Your task to perform on an android device: Open display settings Image 0: 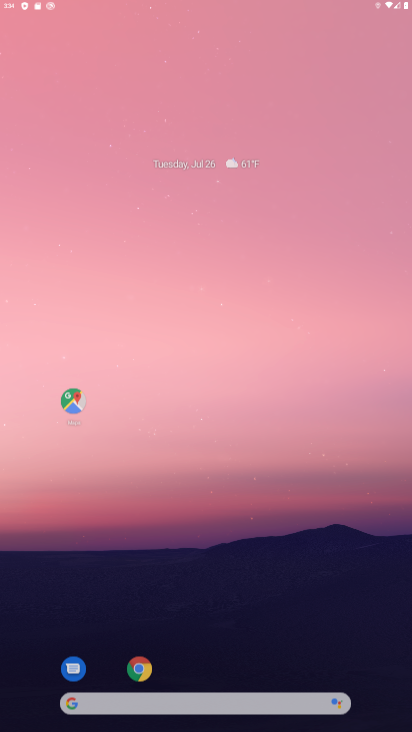
Step 0: press home button
Your task to perform on an android device: Open display settings Image 1: 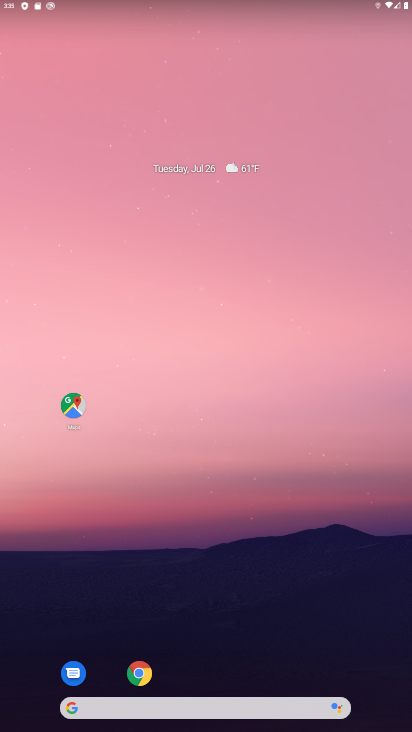
Step 1: drag from (195, 682) to (317, 124)
Your task to perform on an android device: Open display settings Image 2: 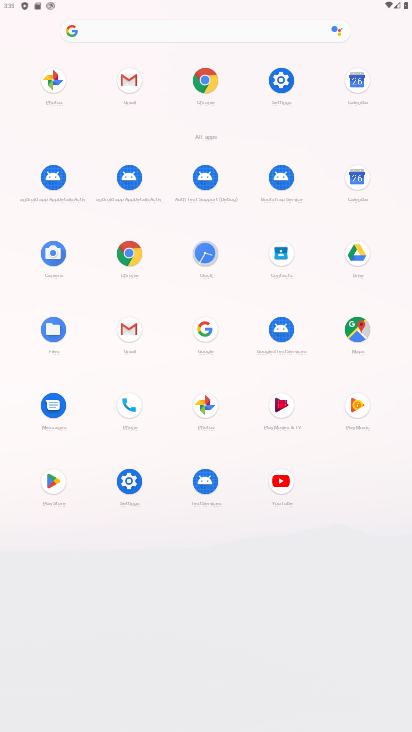
Step 2: click (123, 476)
Your task to perform on an android device: Open display settings Image 3: 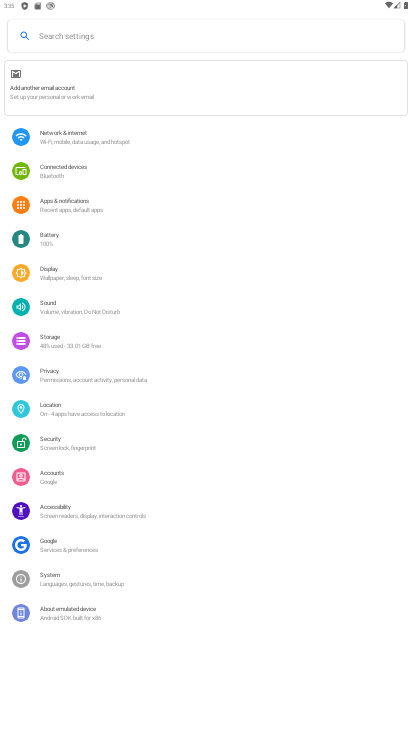
Step 3: click (58, 273)
Your task to perform on an android device: Open display settings Image 4: 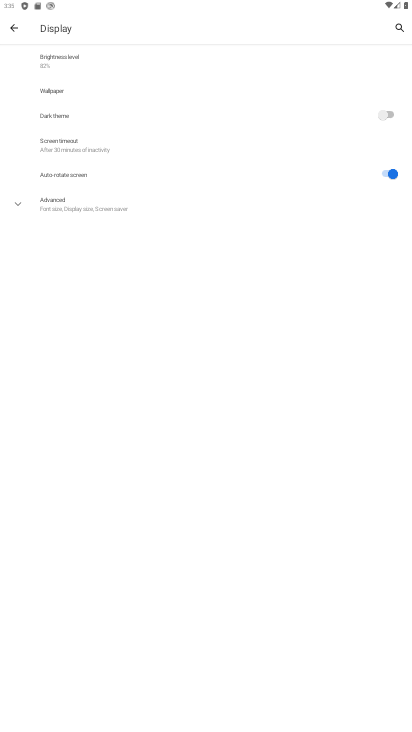
Step 4: click (15, 200)
Your task to perform on an android device: Open display settings Image 5: 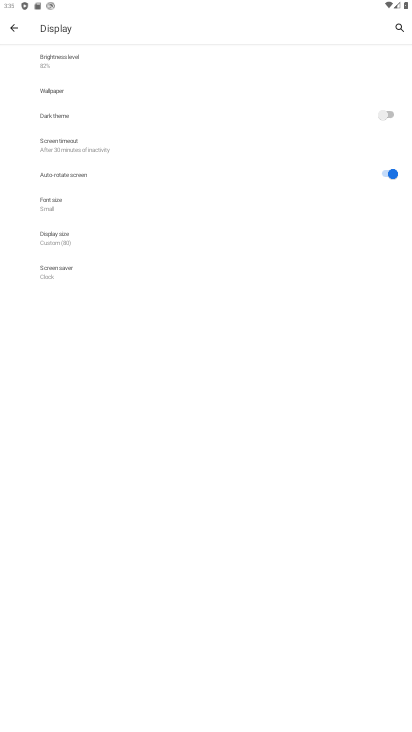
Step 5: task complete